Your task to perform on an android device: Open maps Image 0: 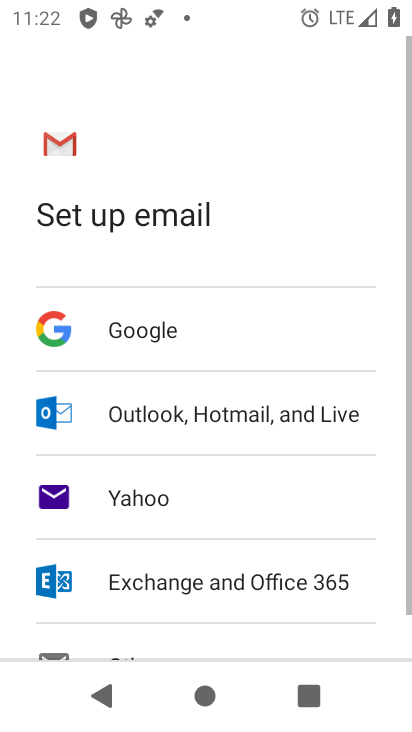
Step 0: press home button
Your task to perform on an android device: Open maps Image 1: 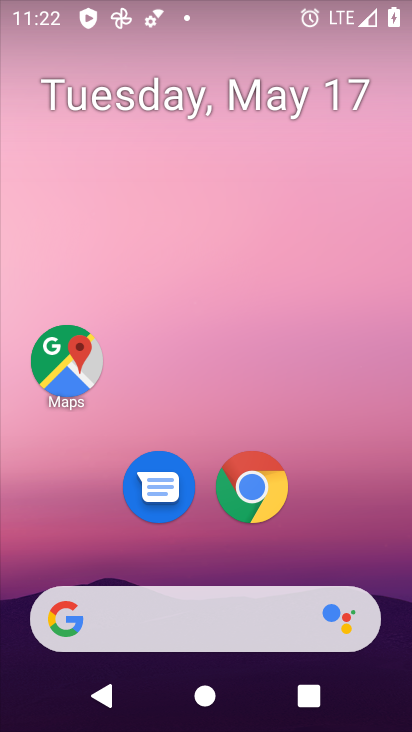
Step 1: click (73, 378)
Your task to perform on an android device: Open maps Image 2: 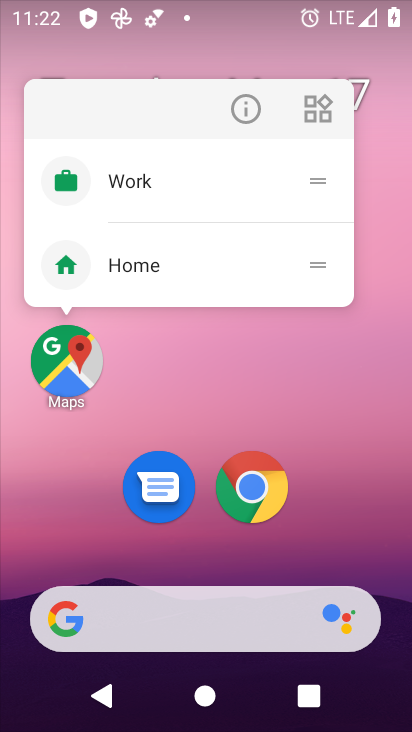
Step 2: click (73, 378)
Your task to perform on an android device: Open maps Image 3: 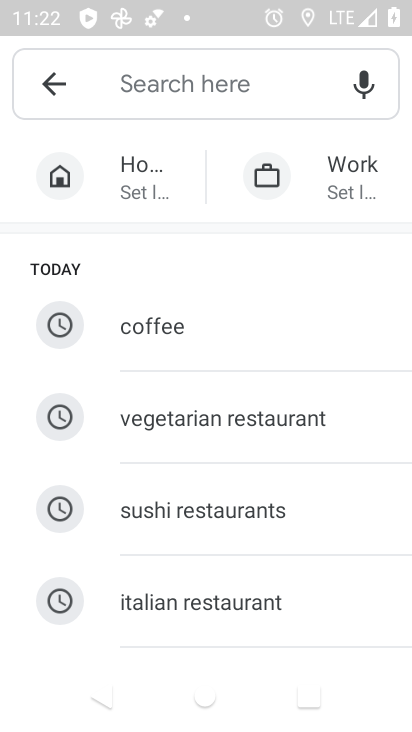
Step 3: press home button
Your task to perform on an android device: Open maps Image 4: 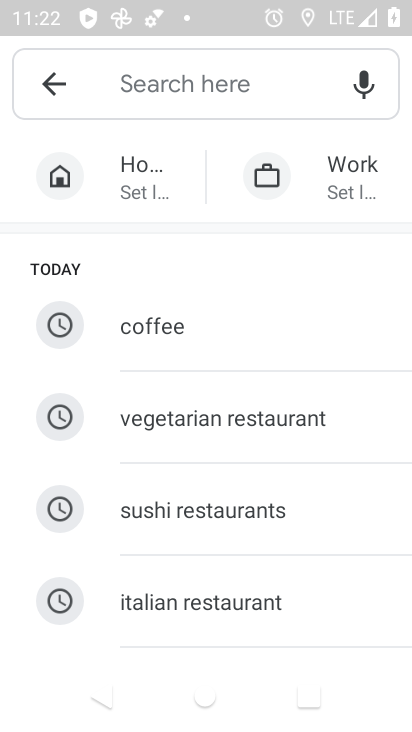
Step 4: press home button
Your task to perform on an android device: Open maps Image 5: 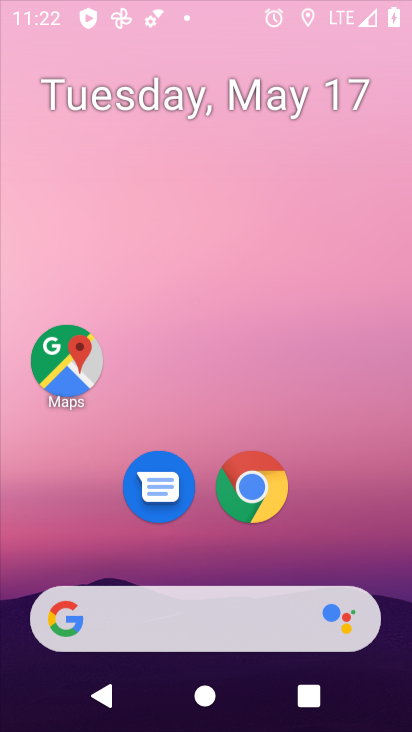
Step 5: press home button
Your task to perform on an android device: Open maps Image 6: 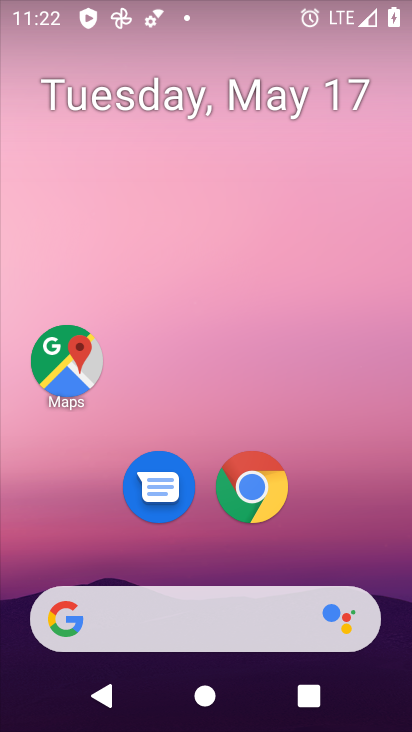
Step 6: click (46, 365)
Your task to perform on an android device: Open maps Image 7: 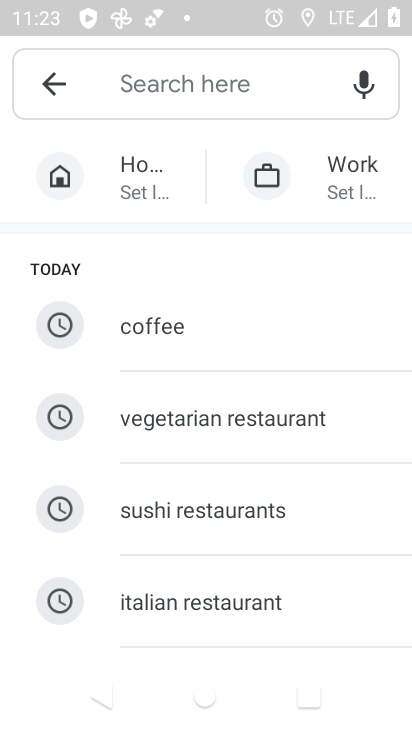
Step 7: task complete